Your task to perform on an android device: change the upload size in google photos Image 0: 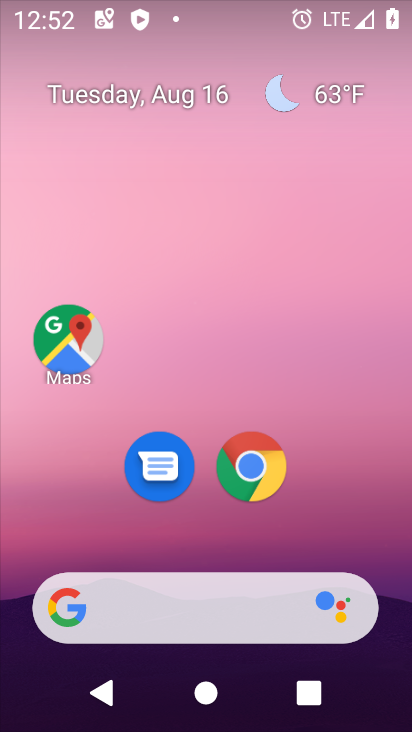
Step 0: drag from (186, 522) to (198, 170)
Your task to perform on an android device: change the upload size in google photos Image 1: 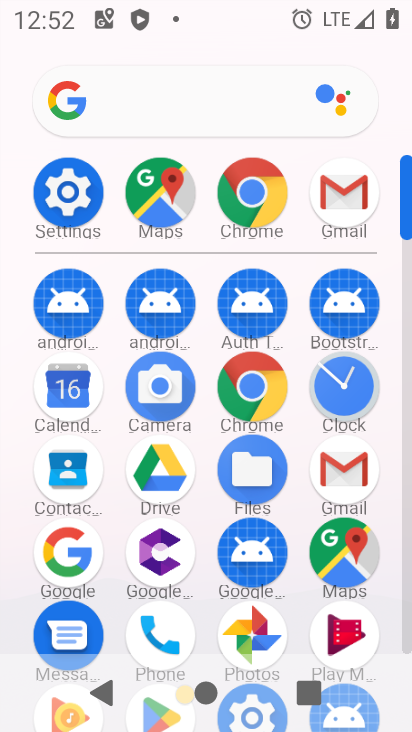
Step 1: click (251, 606)
Your task to perform on an android device: change the upload size in google photos Image 2: 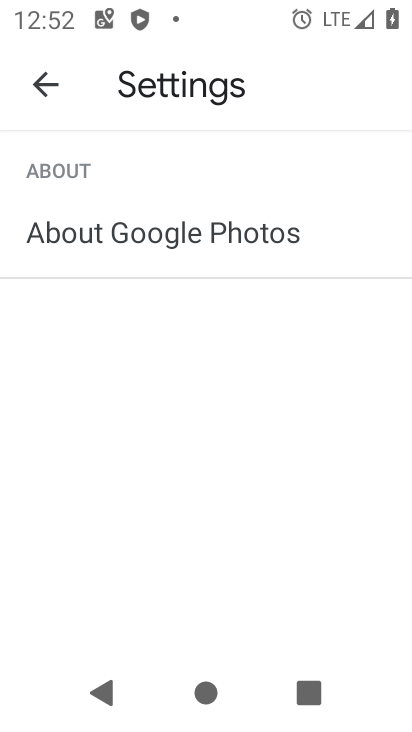
Step 2: click (42, 92)
Your task to perform on an android device: change the upload size in google photos Image 3: 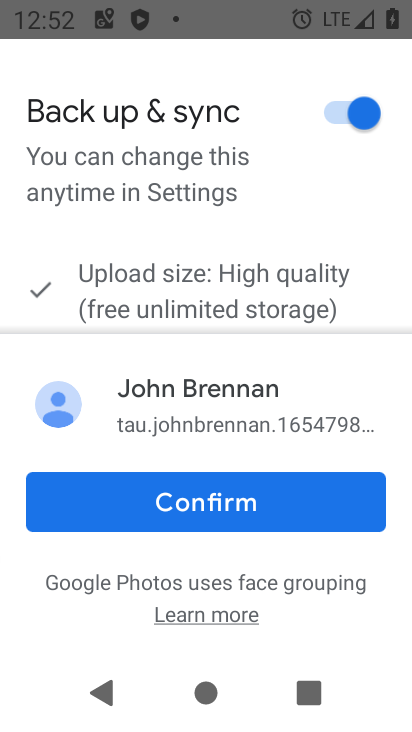
Step 3: click (221, 489)
Your task to perform on an android device: change the upload size in google photos Image 4: 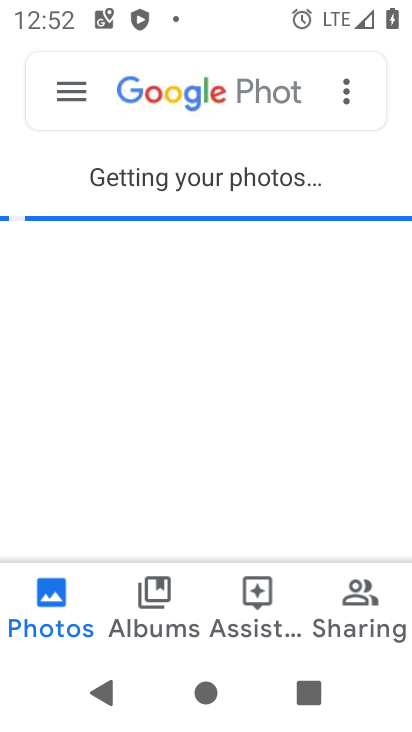
Step 4: click (72, 92)
Your task to perform on an android device: change the upload size in google photos Image 5: 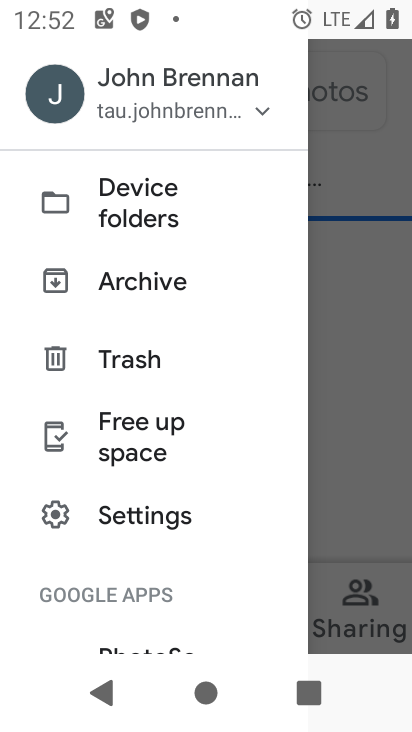
Step 5: click (131, 502)
Your task to perform on an android device: change the upload size in google photos Image 6: 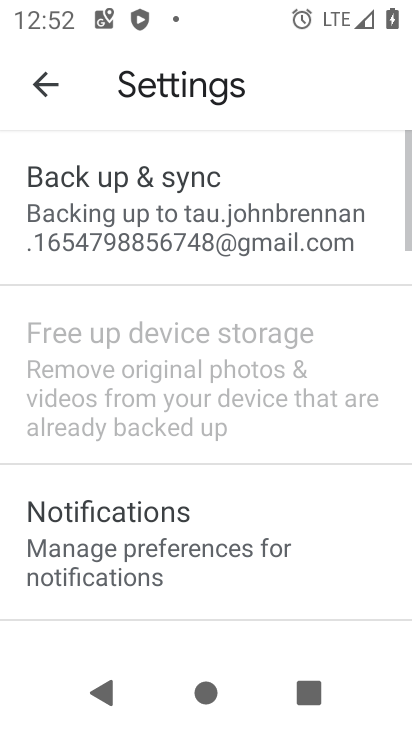
Step 6: click (133, 240)
Your task to perform on an android device: change the upload size in google photos Image 7: 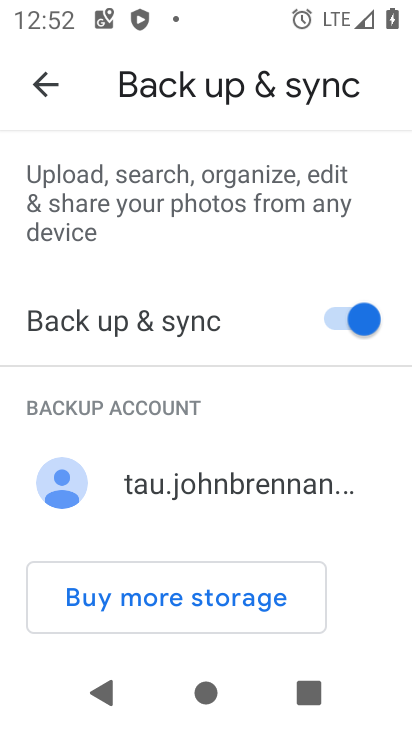
Step 7: drag from (169, 496) to (197, 253)
Your task to perform on an android device: change the upload size in google photos Image 8: 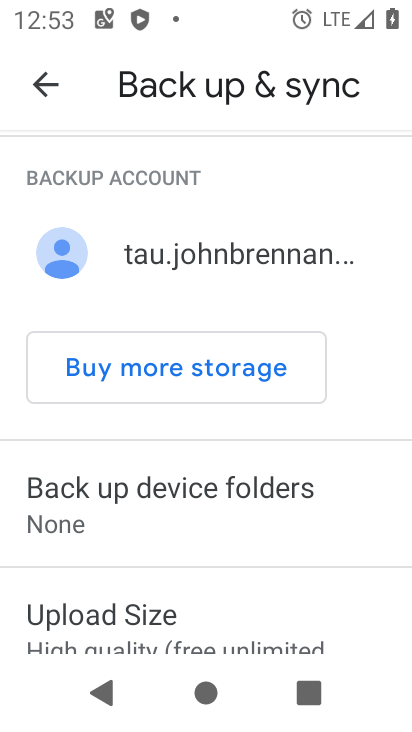
Step 8: click (152, 627)
Your task to perform on an android device: change the upload size in google photos Image 9: 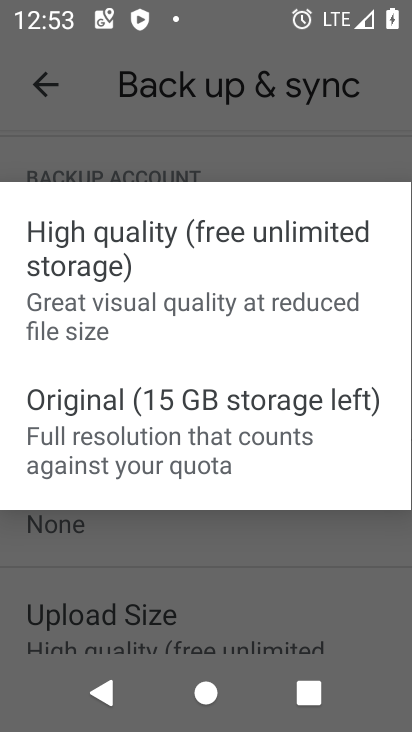
Step 9: click (160, 413)
Your task to perform on an android device: change the upload size in google photos Image 10: 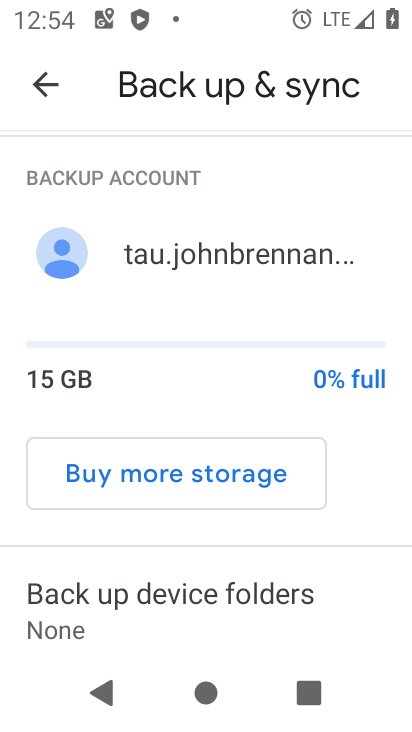
Step 10: task complete